Your task to perform on an android device: turn off picture-in-picture Image 0: 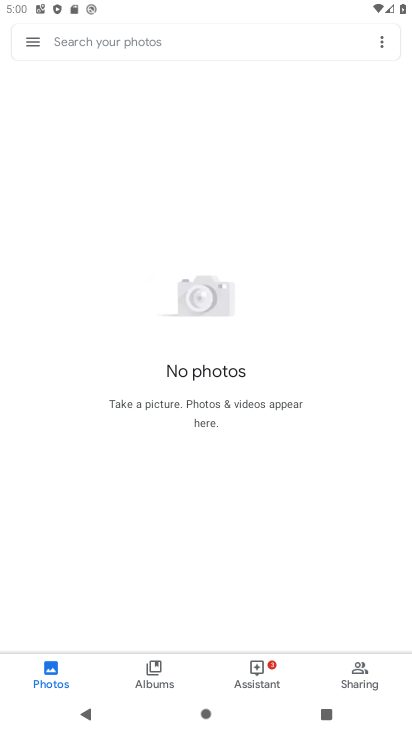
Step 0: press home button
Your task to perform on an android device: turn off picture-in-picture Image 1: 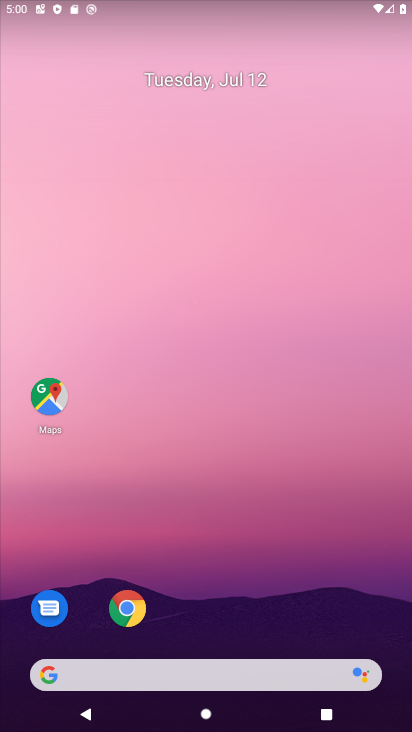
Step 1: click (133, 610)
Your task to perform on an android device: turn off picture-in-picture Image 2: 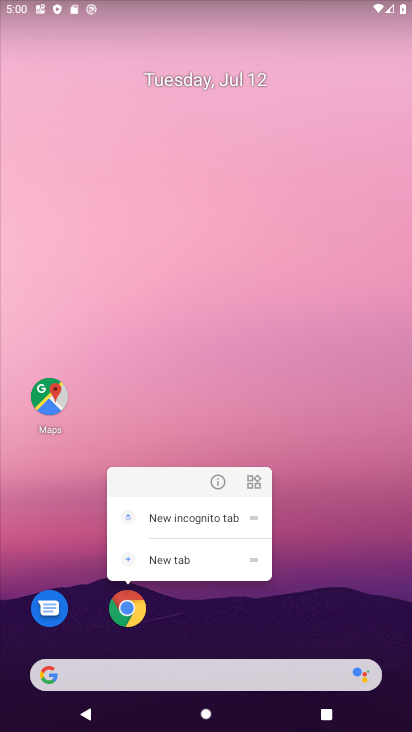
Step 2: click (213, 485)
Your task to perform on an android device: turn off picture-in-picture Image 3: 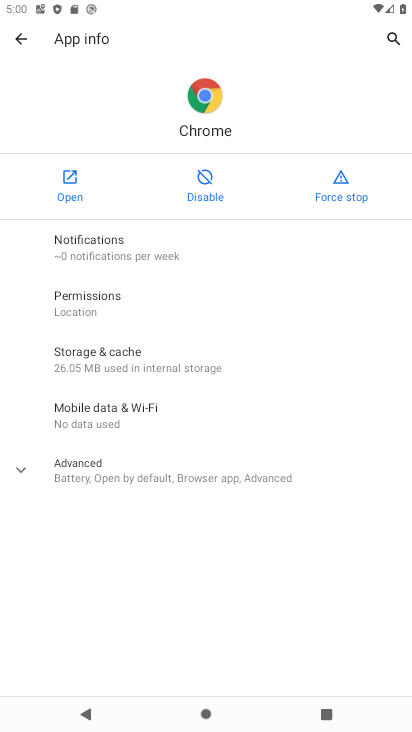
Step 3: click (164, 470)
Your task to perform on an android device: turn off picture-in-picture Image 4: 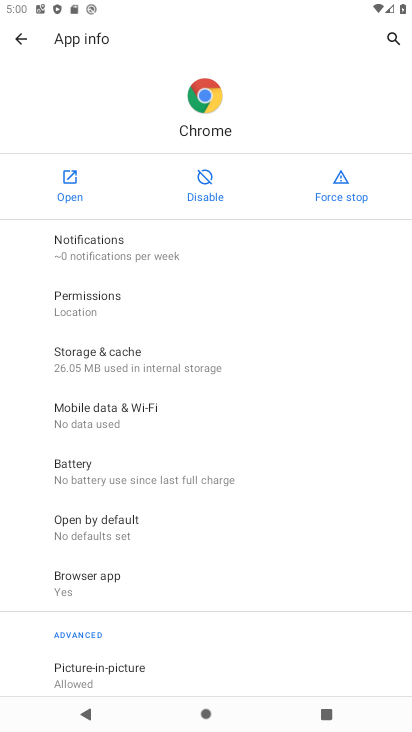
Step 4: click (107, 656)
Your task to perform on an android device: turn off picture-in-picture Image 5: 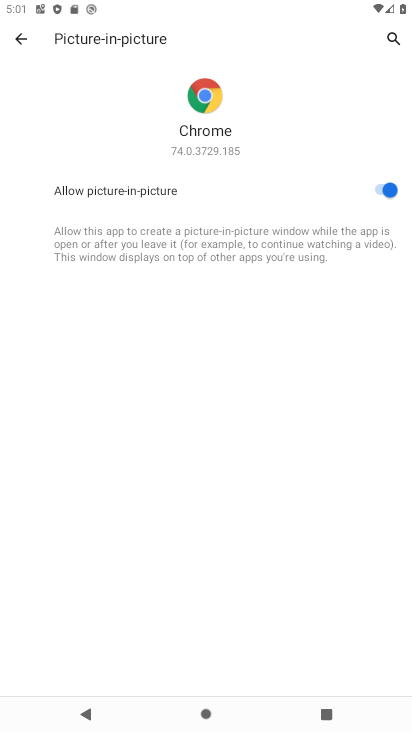
Step 5: click (384, 186)
Your task to perform on an android device: turn off picture-in-picture Image 6: 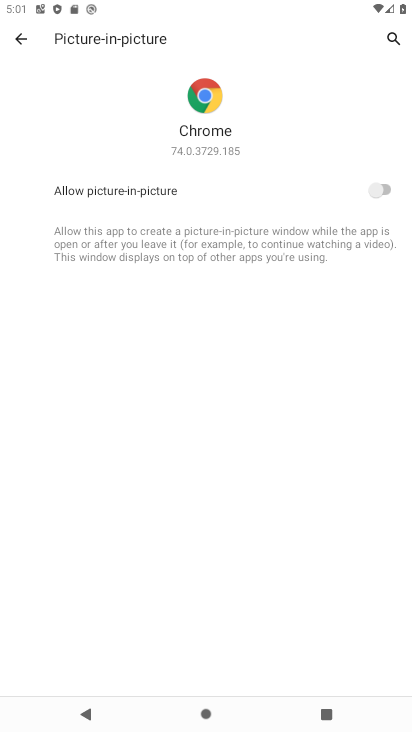
Step 6: task complete